Your task to perform on an android device: Open Reddit.com Image 0: 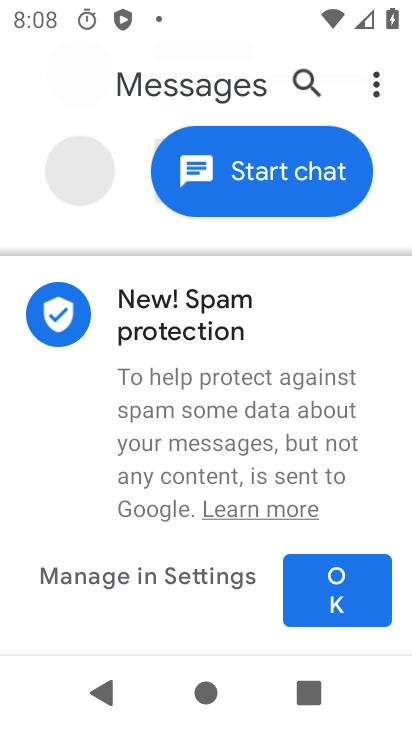
Step 0: press home button
Your task to perform on an android device: Open Reddit.com Image 1: 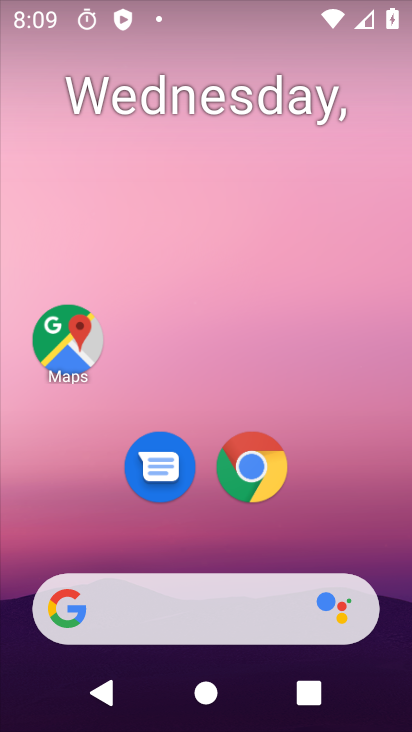
Step 1: click (232, 468)
Your task to perform on an android device: Open Reddit.com Image 2: 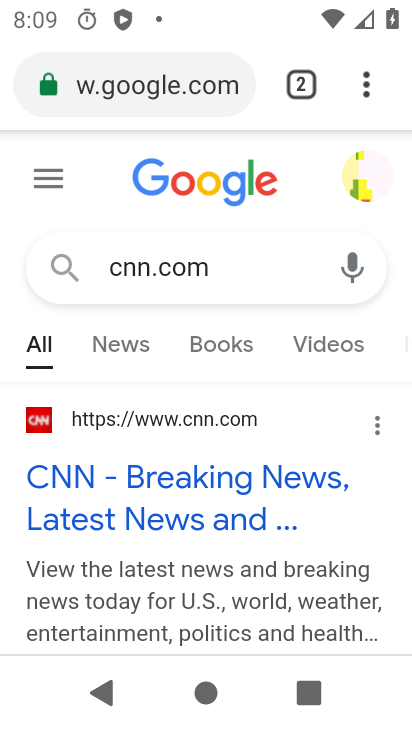
Step 2: click (224, 265)
Your task to perform on an android device: Open Reddit.com Image 3: 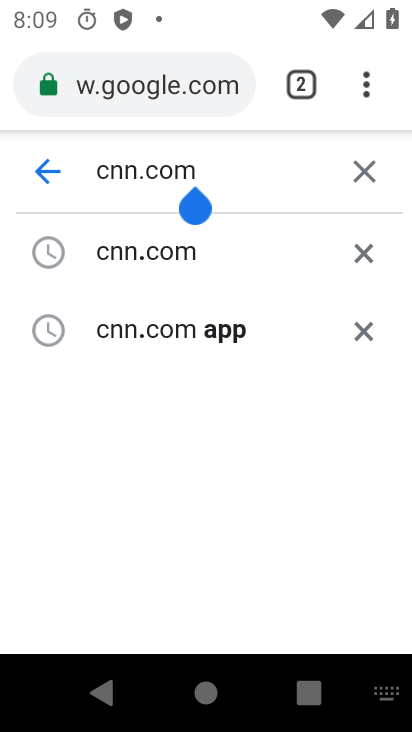
Step 3: click (373, 168)
Your task to perform on an android device: Open Reddit.com Image 4: 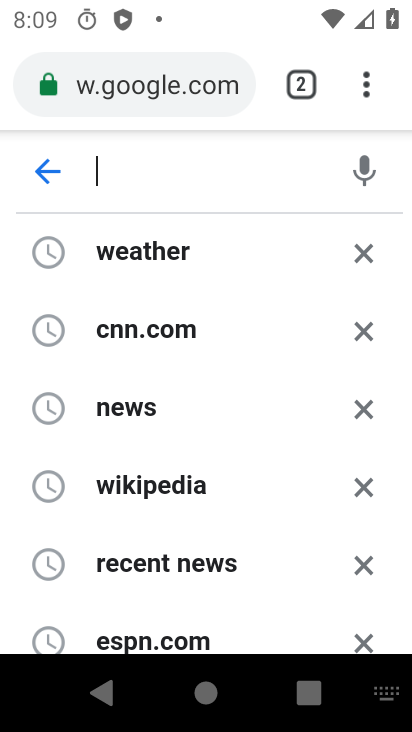
Step 4: type "Reddit.com"
Your task to perform on an android device: Open Reddit.com Image 5: 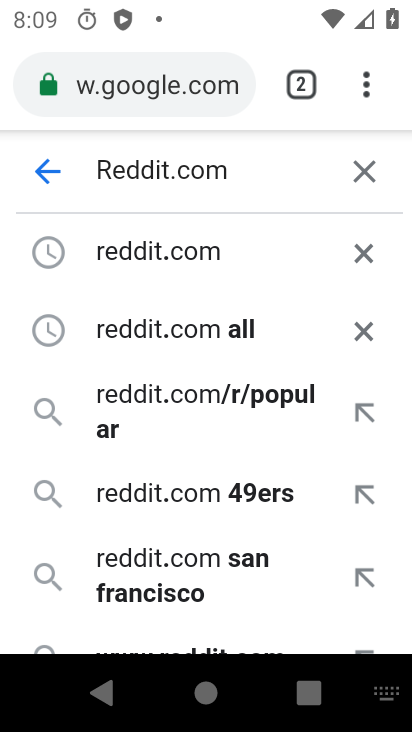
Step 5: click (129, 251)
Your task to perform on an android device: Open Reddit.com Image 6: 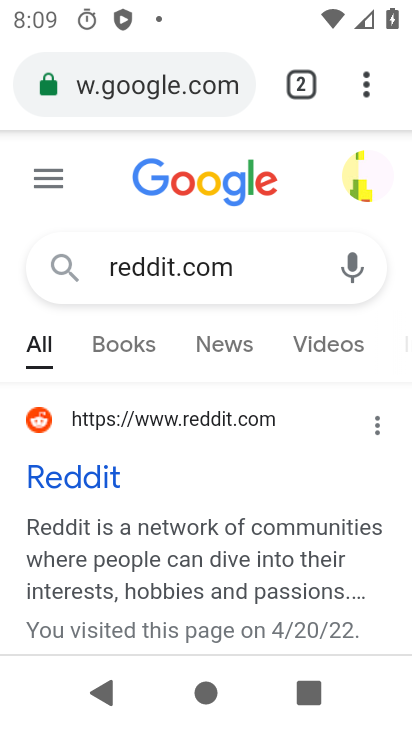
Step 6: task complete